Your task to perform on an android device: turn on javascript in the chrome app Image 0: 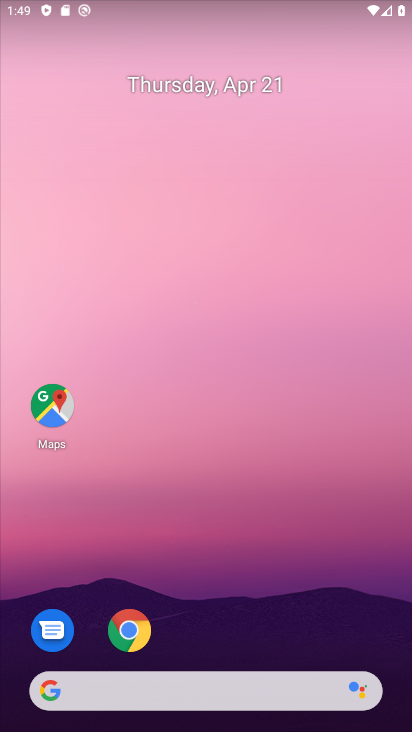
Step 0: click (132, 638)
Your task to perform on an android device: turn on javascript in the chrome app Image 1: 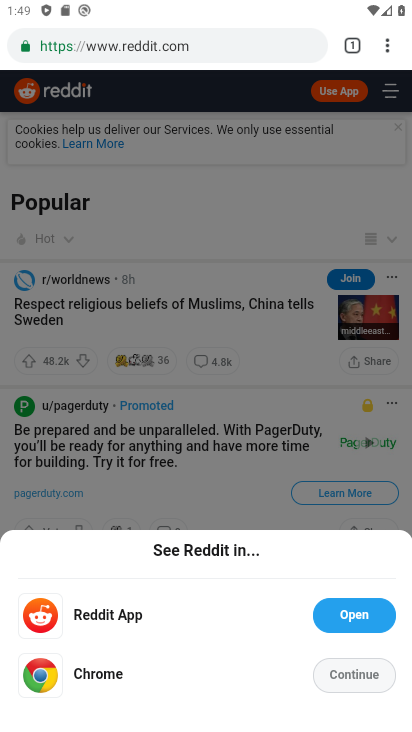
Step 1: click (388, 50)
Your task to perform on an android device: turn on javascript in the chrome app Image 2: 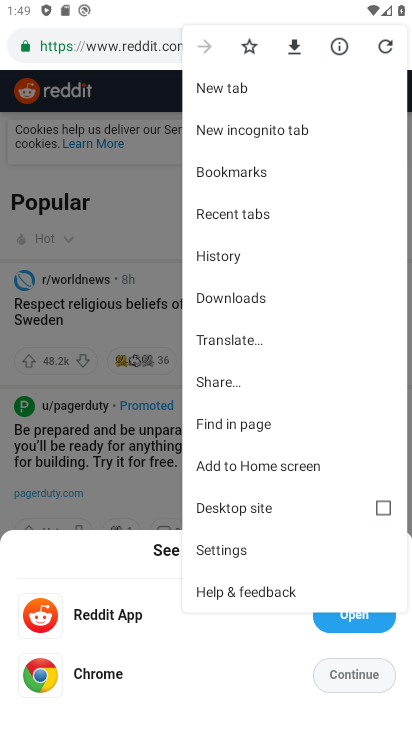
Step 2: click (235, 549)
Your task to perform on an android device: turn on javascript in the chrome app Image 3: 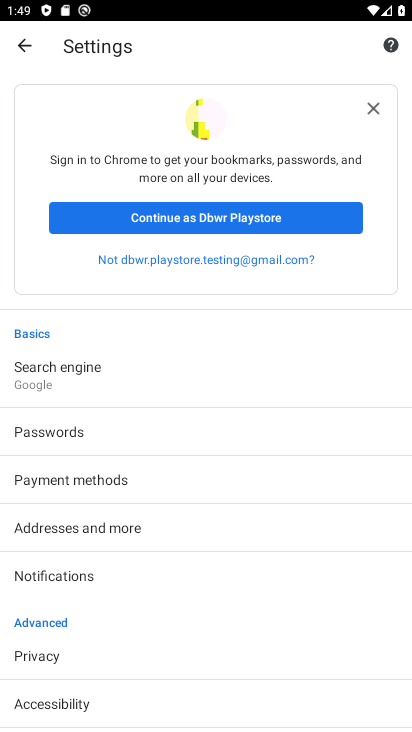
Step 3: drag from (159, 593) to (160, 332)
Your task to perform on an android device: turn on javascript in the chrome app Image 4: 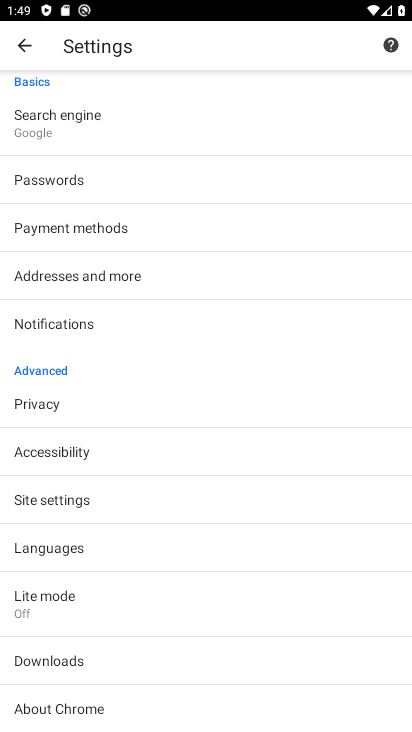
Step 4: click (50, 504)
Your task to perform on an android device: turn on javascript in the chrome app Image 5: 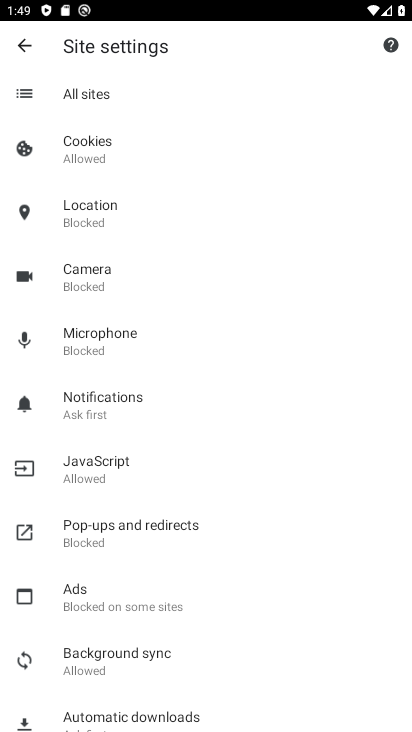
Step 5: click (78, 475)
Your task to perform on an android device: turn on javascript in the chrome app Image 6: 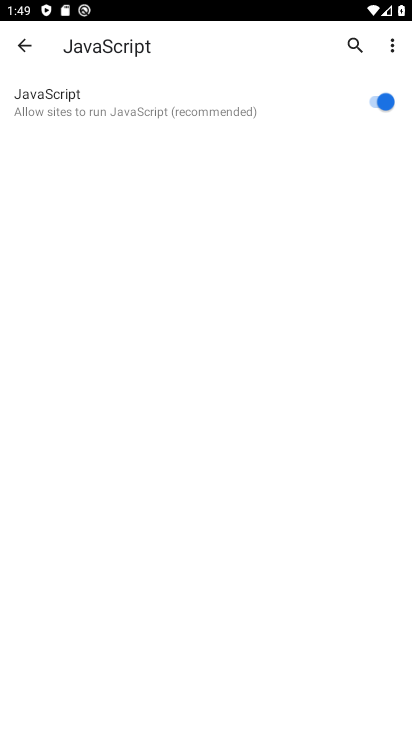
Step 6: task complete